Your task to perform on an android device: turn off airplane mode Image 0: 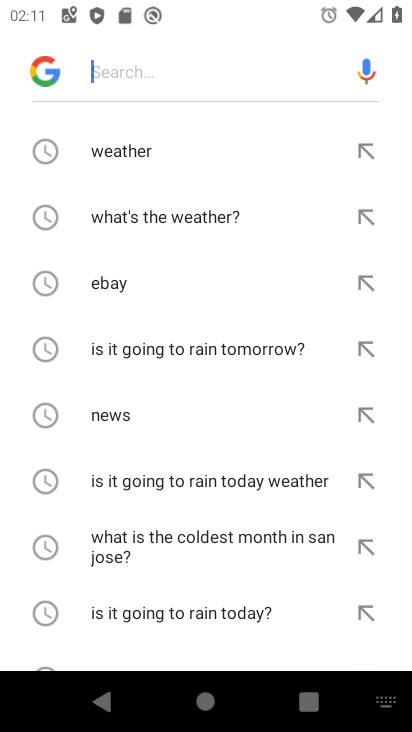
Step 0: press home button
Your task to perform on an android device: turn off airplane mode Image 1: 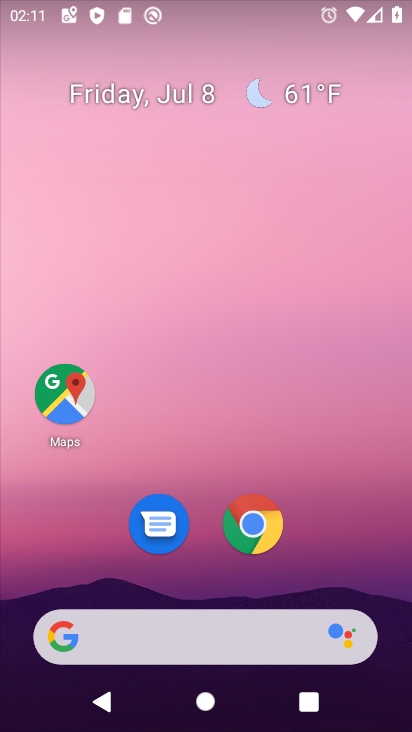
Step 1: drag from (331, 558) to (321, 6)
Your task to perform on an android device: turn off airplane mode Image 2: 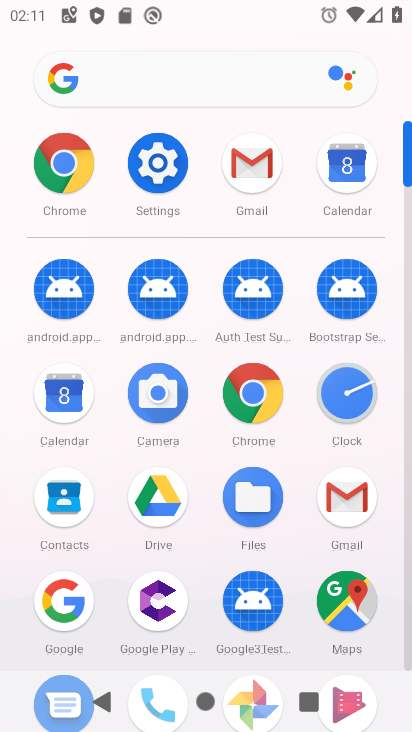
Step 2: click (157, 160)
Your task to perform on an android device: turn off airplane mode Image 3: 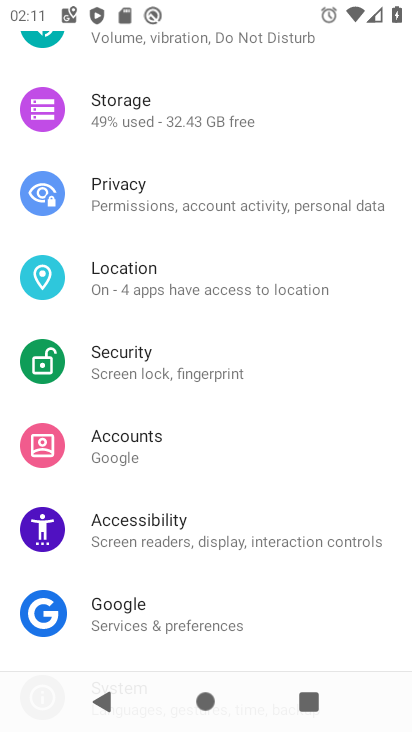
Step 3: drag from (313, 115) to (280, 628)
Your task to perform on an android device: turn off airplane mode Image 4: 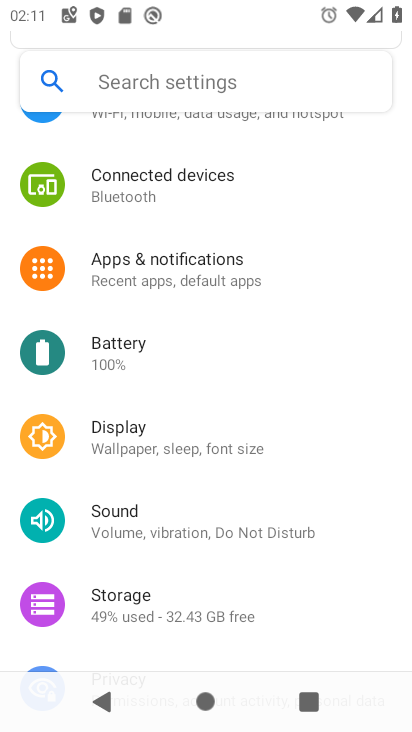
Step 4: drag from (274, 335) to (290, 619)
Your task to perform on an android device: turn off airplane mode Image 5: 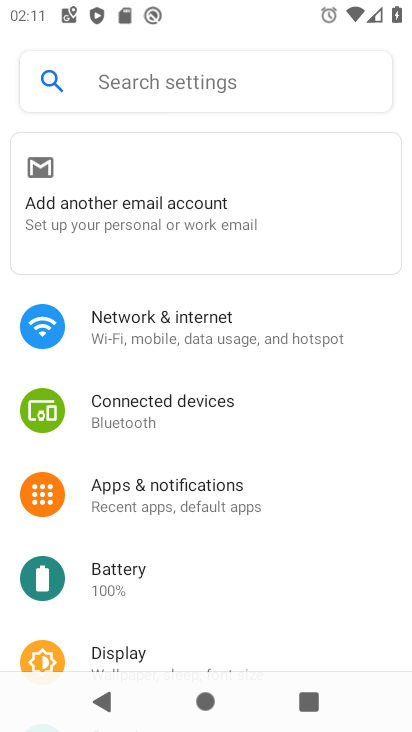
Step 5: click (237, 333)
Your task to perform on an android device: turn off airplane mode Image 6: 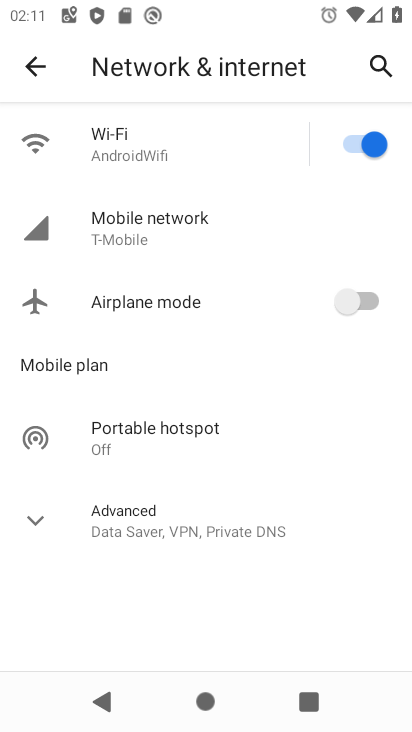
Step 6: task complete